Your task to perform on an android device: Empty the shopping cart on newegg.com. Image 0: 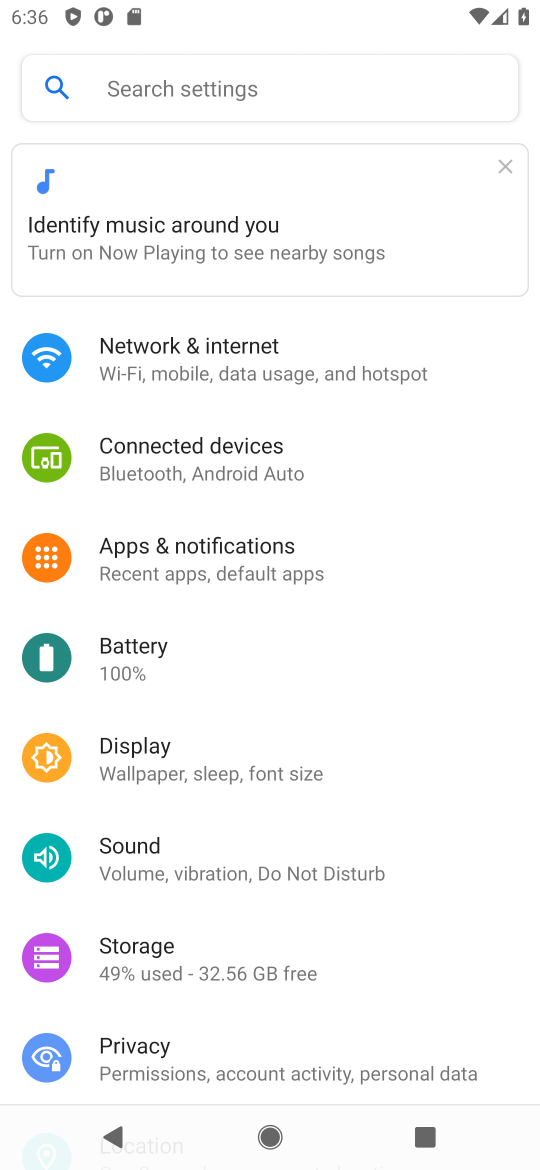
Step 0: press home button
Your task to perform on an android device: Empty the shopping cart on newegg.com. Image 1: 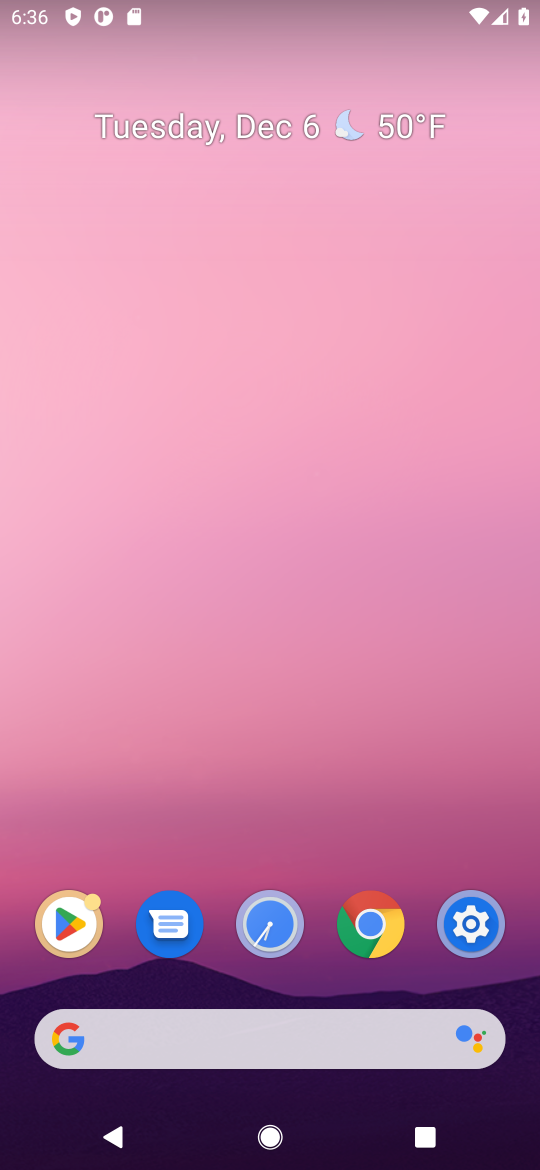
Step 1: click (239, 1032)
Your task to perform on an android device: Empty the shopping cart on newegg.com. Image 2: 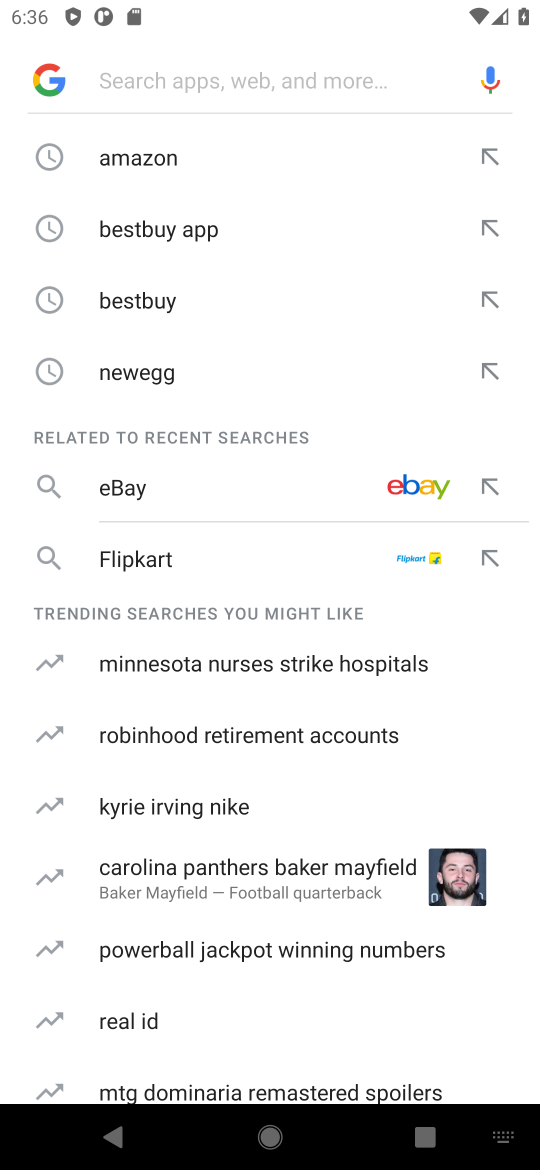
Step 2: type "newegg"
Your task to perform on an android device: Empty the shopping cart on newegg.com. Image 3: 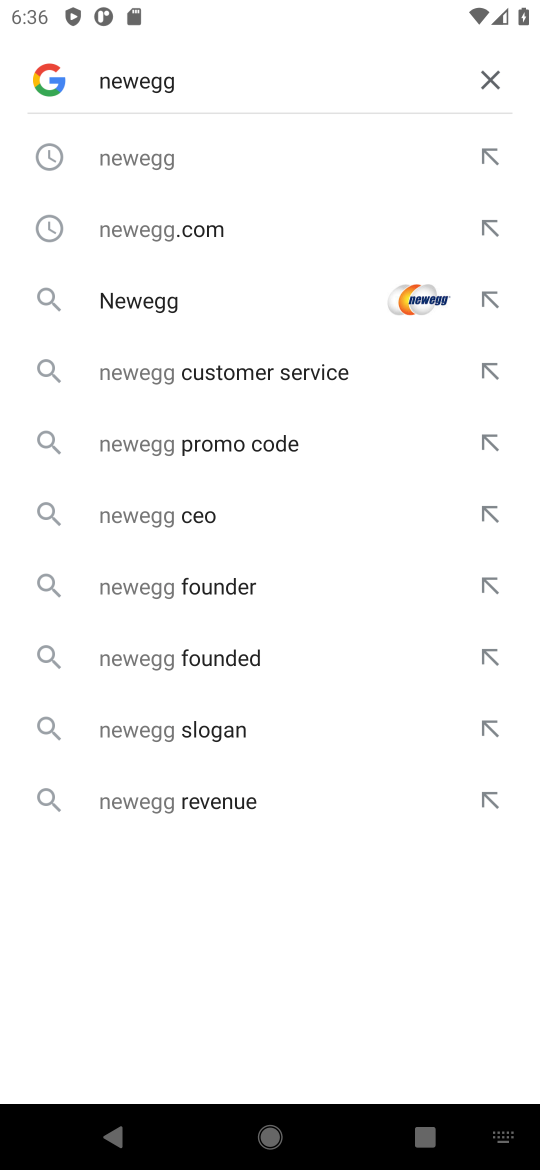
Step 3: click (140, 321)
Your task to perform on an android device: Empty the shopping cart on newegg.com. Image 4: 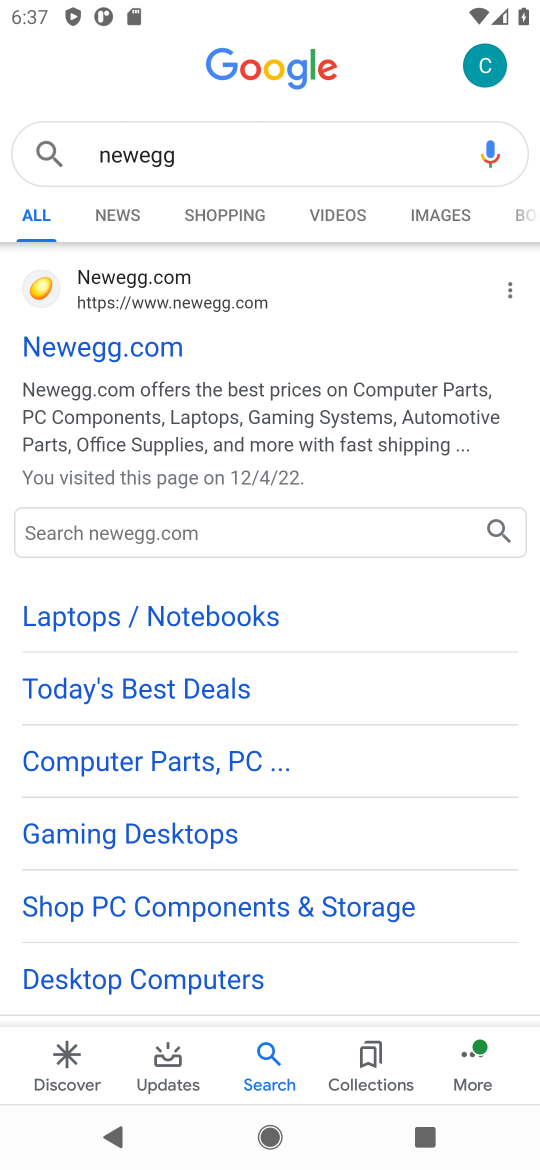
Step 4: click (103, 364)
Your task to perform on an android device: Empty the shopping cart on newegg.com. Image 5: 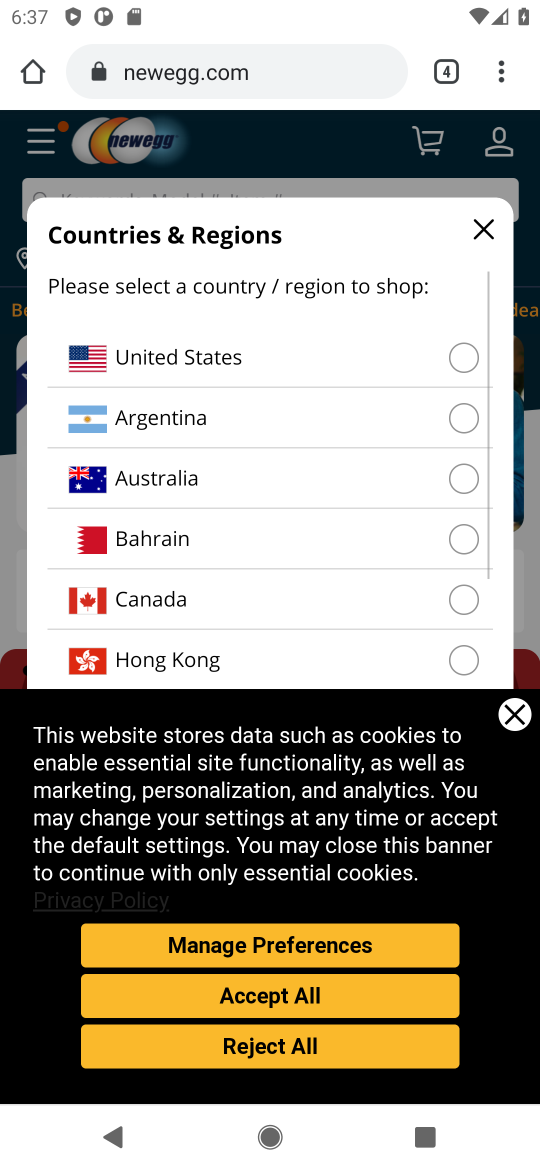
Step 5: click (367, 375)
Your task to perform on an android device: Empty the shopping cart on newegg.com. Image 6: 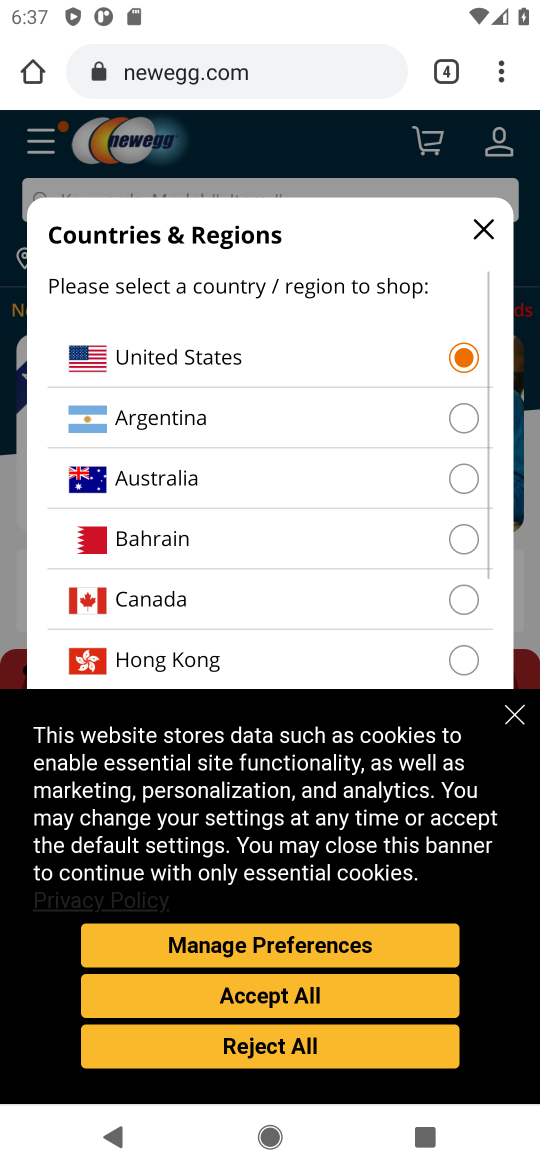
Step 6: click (288, 1003)
Your task to perform on an android device: Empty the shopping cart on newegg.com. Image 7: 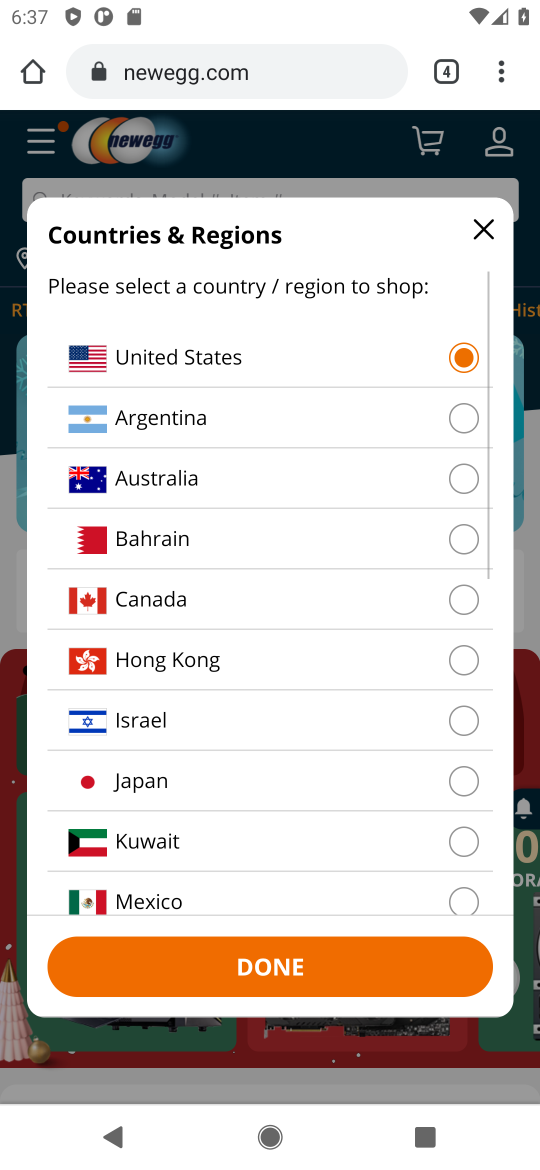
Step 7: click (311, 976)
Your task to perform on an android device: Empty the shopping cart on newegg.com. Image 8: 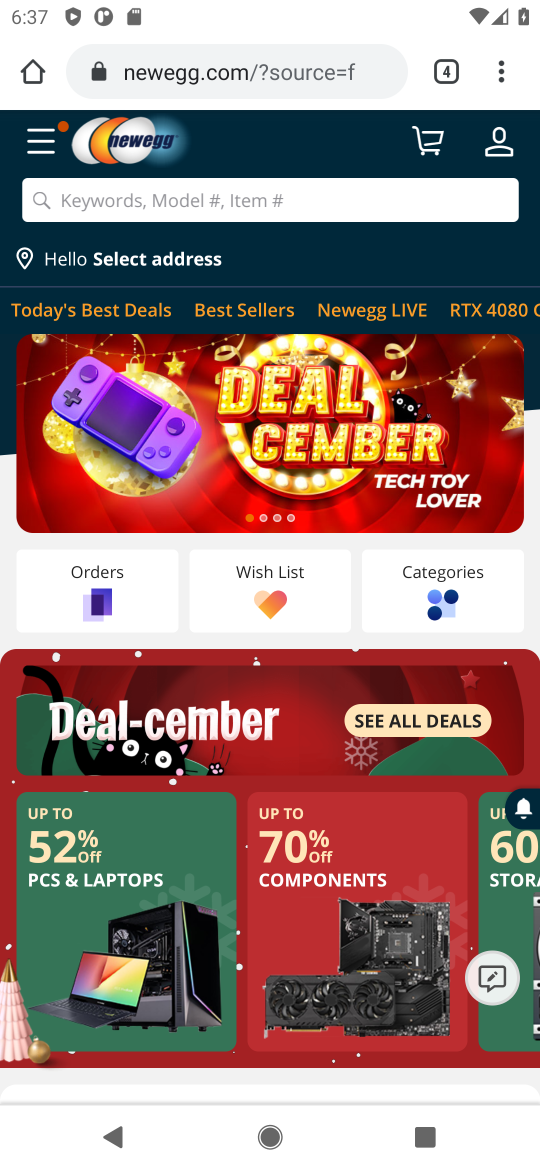
Step 8: click (276, 214)
Your task to perform on an android device: Empty the shopping cart on newegg.com. Image 9: 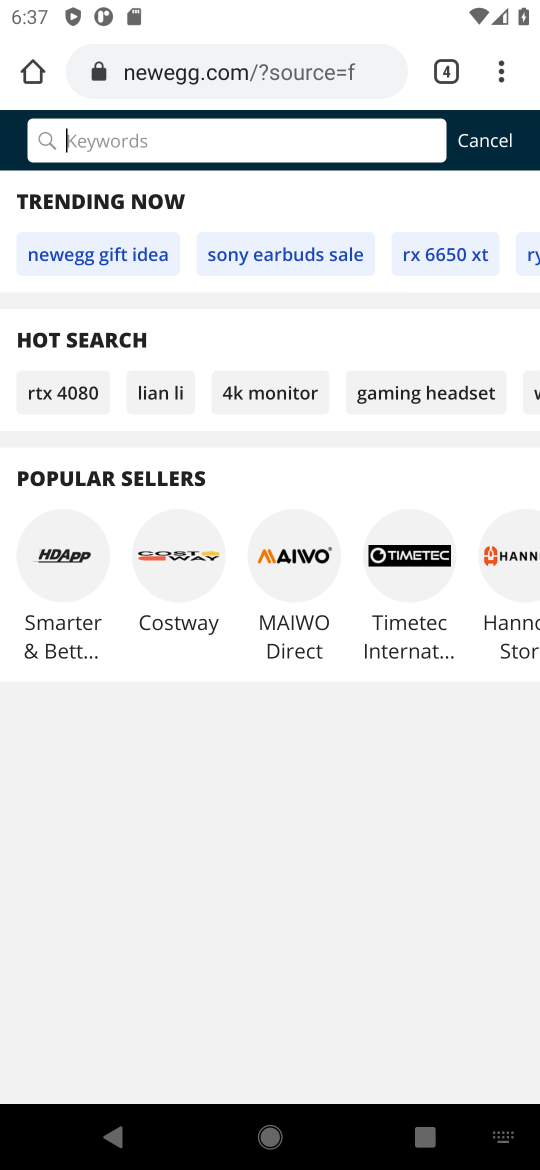
Step 9: click (518, 142)
Your task to perform on an android device: Empty the shopping cart on newegg.com. Image 10: 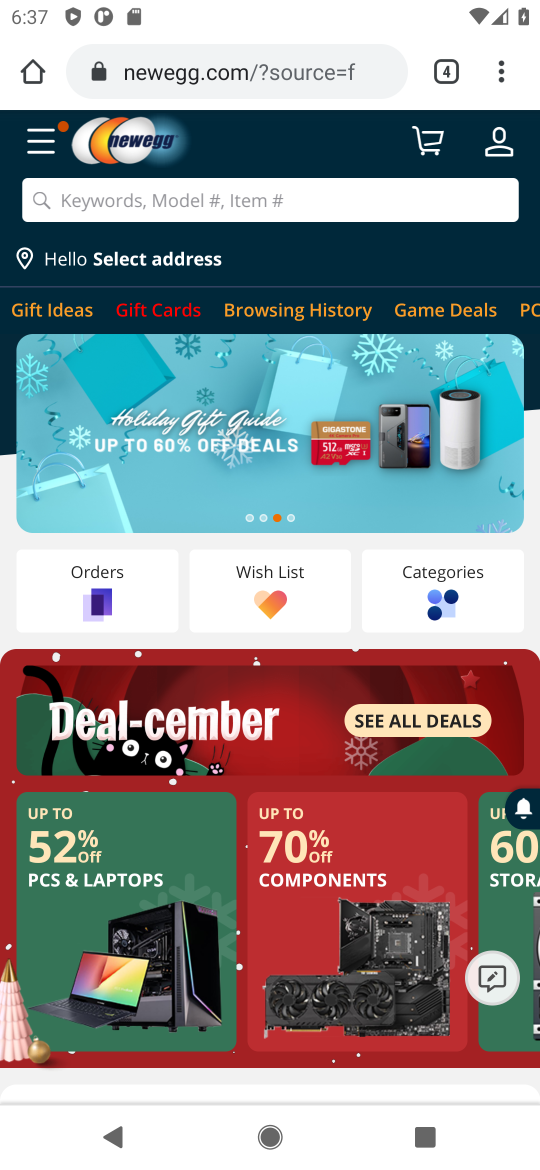
Step 10: click (440, 159)
Your task to perform on an android device: Empty the shopping cart on newegg.com. Image 11: 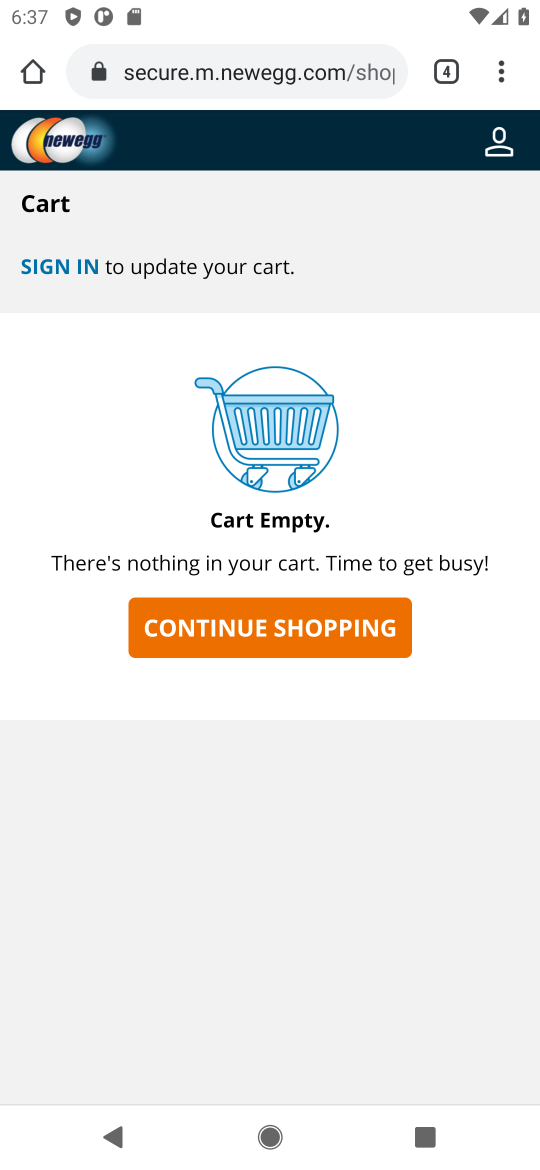
Step 11: task complete